Your task to perform on an android device: turn off location history Image 0: 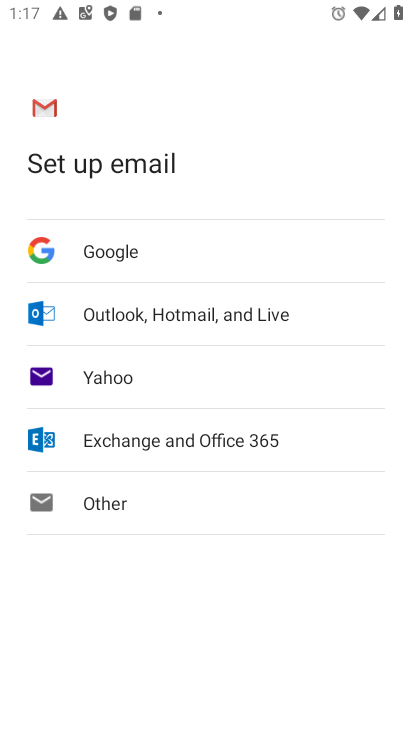
Step 0: press home button
Your task to perform on an android device: turn off location history Image 1: 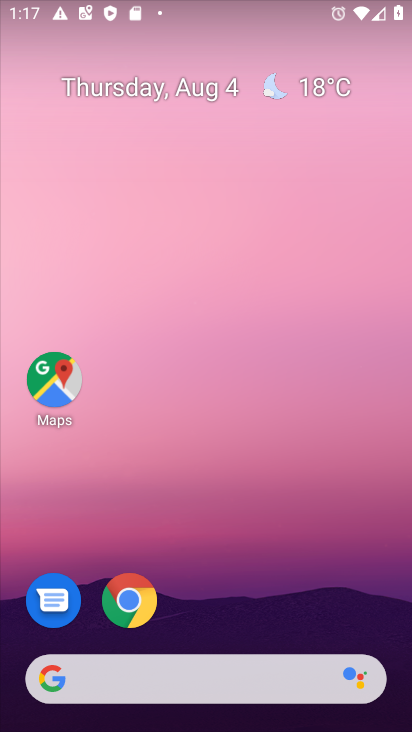
Step 1: click (45, 383)
Your task to perform on an android device: turn off location history Image 2: 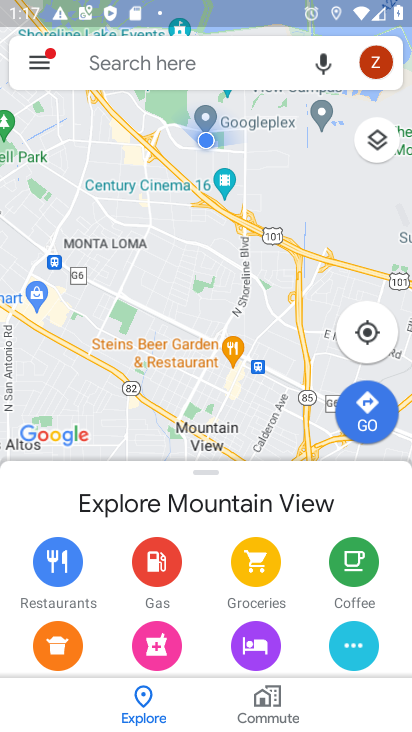
Step 2: click (40, 58)
Your task to perform on an android device: turn off location history Image 3: 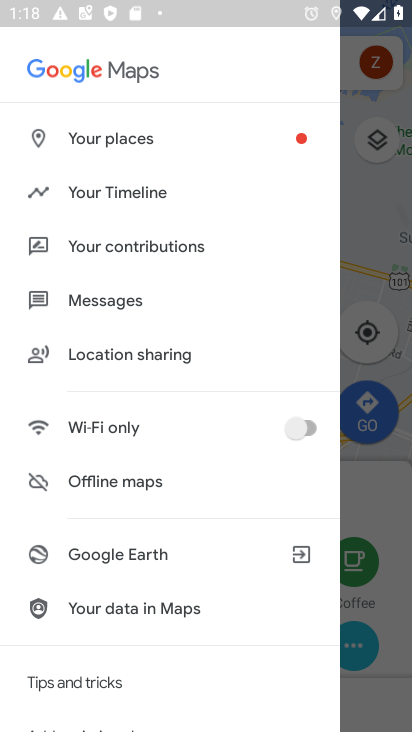
Step 3: click (133, 195)
Your task to perform on an android device: turn off location history Image 4: 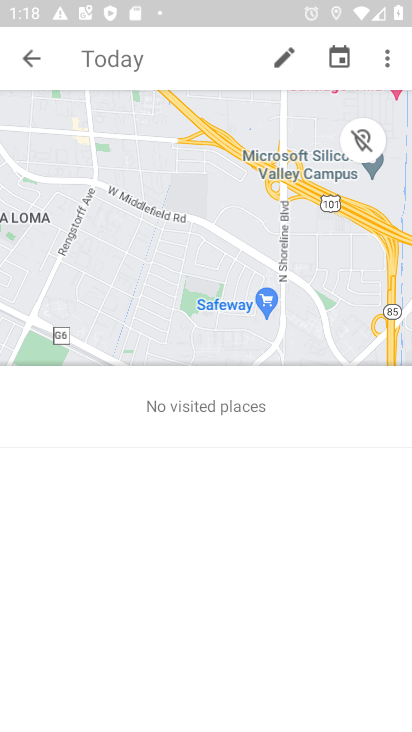
Step 4: click (392, 56)
Your task to perform on an android device: turn off location history Image 5: 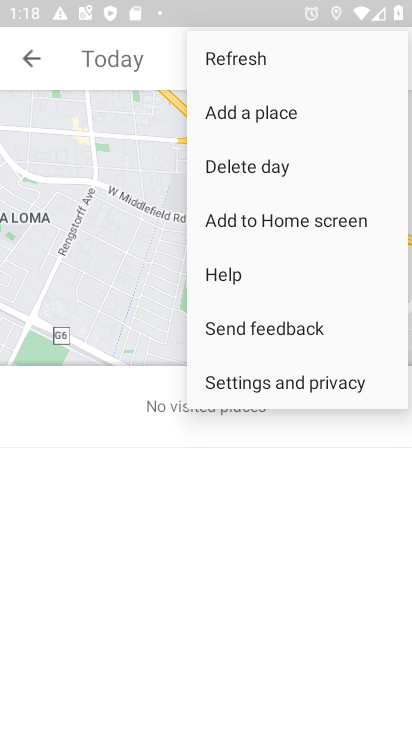
Step 5: click (295, 387)
Your task to perform on an android device: turn off location history Image 6: 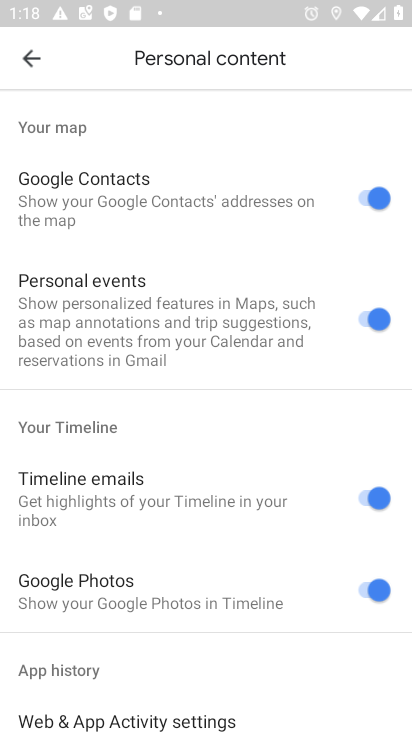
Step 6: drag from (148, 640) to (259, 212)
Your task to perform on an android device: turn off location history Image 7: 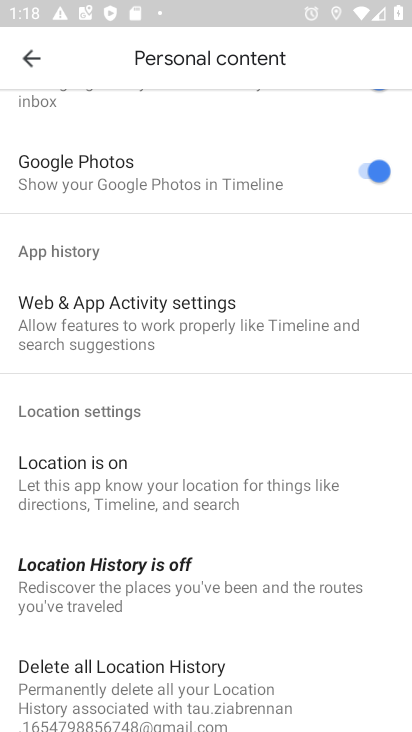
Step 7: click (167, 574)
Your task to perform on an android device: turn off location history Image 8: 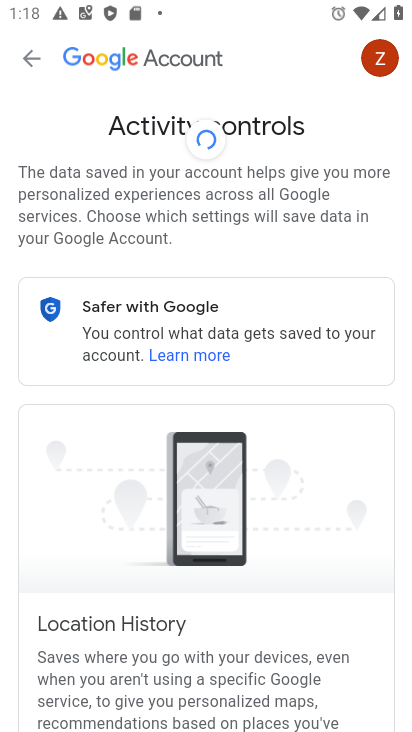
Step 8: task complete